Your task to perform on an android device: open app "Viber Messenger" (install if not already installed) Image 0: 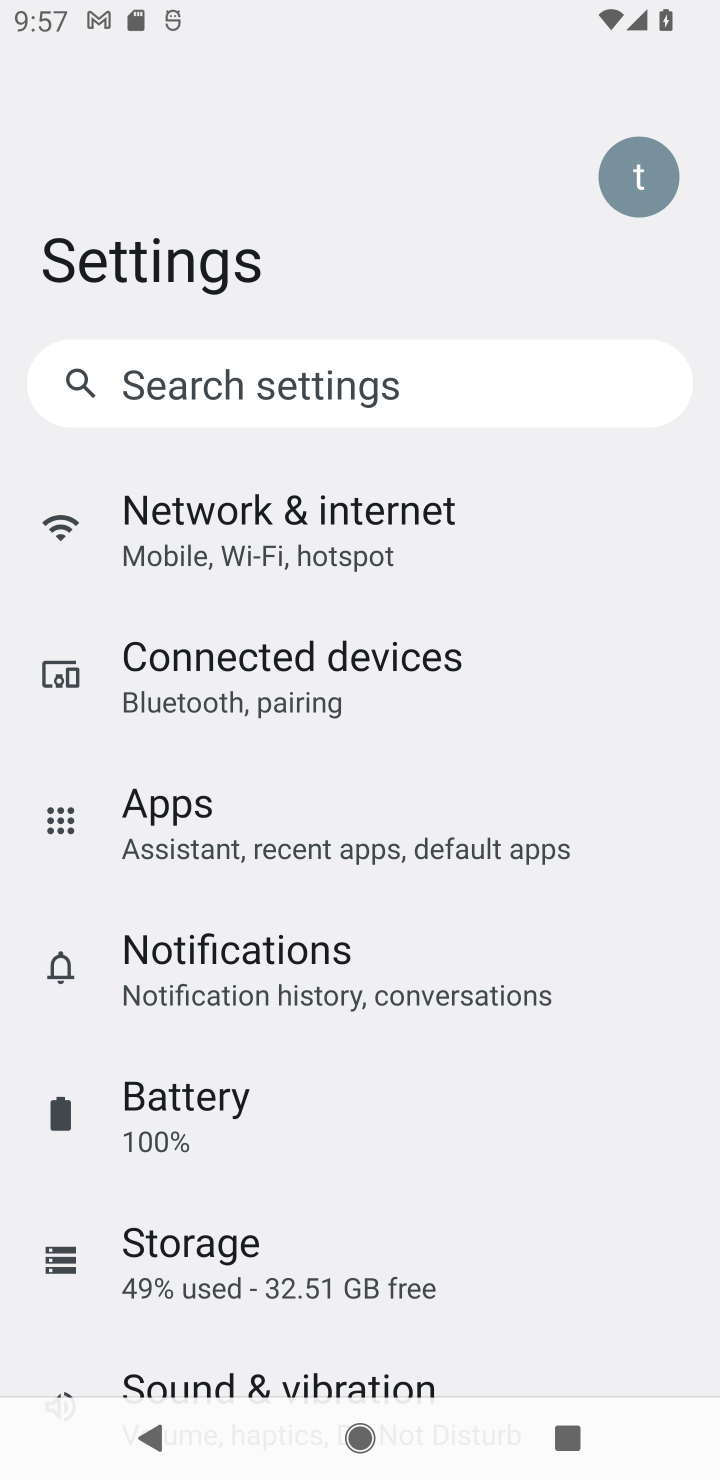
Step 0: press home button
Your task to perform on an android device: open app "Viber Messenger" (install if not already installed) Image 1: 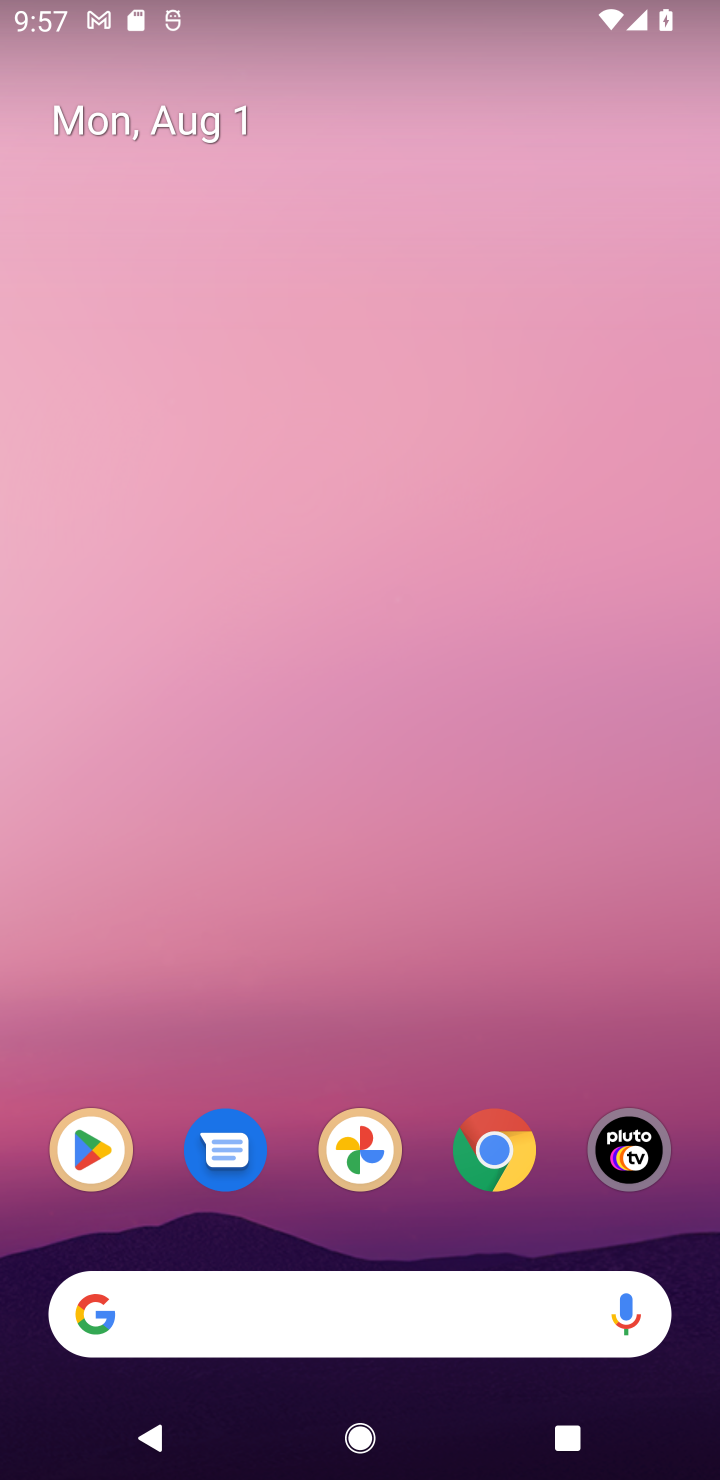
Step 1: drag from (315, 616) to (369, 31)
Your task to perform on an android device: open app "Viber Messenger" (install if not already installed) Image 2: 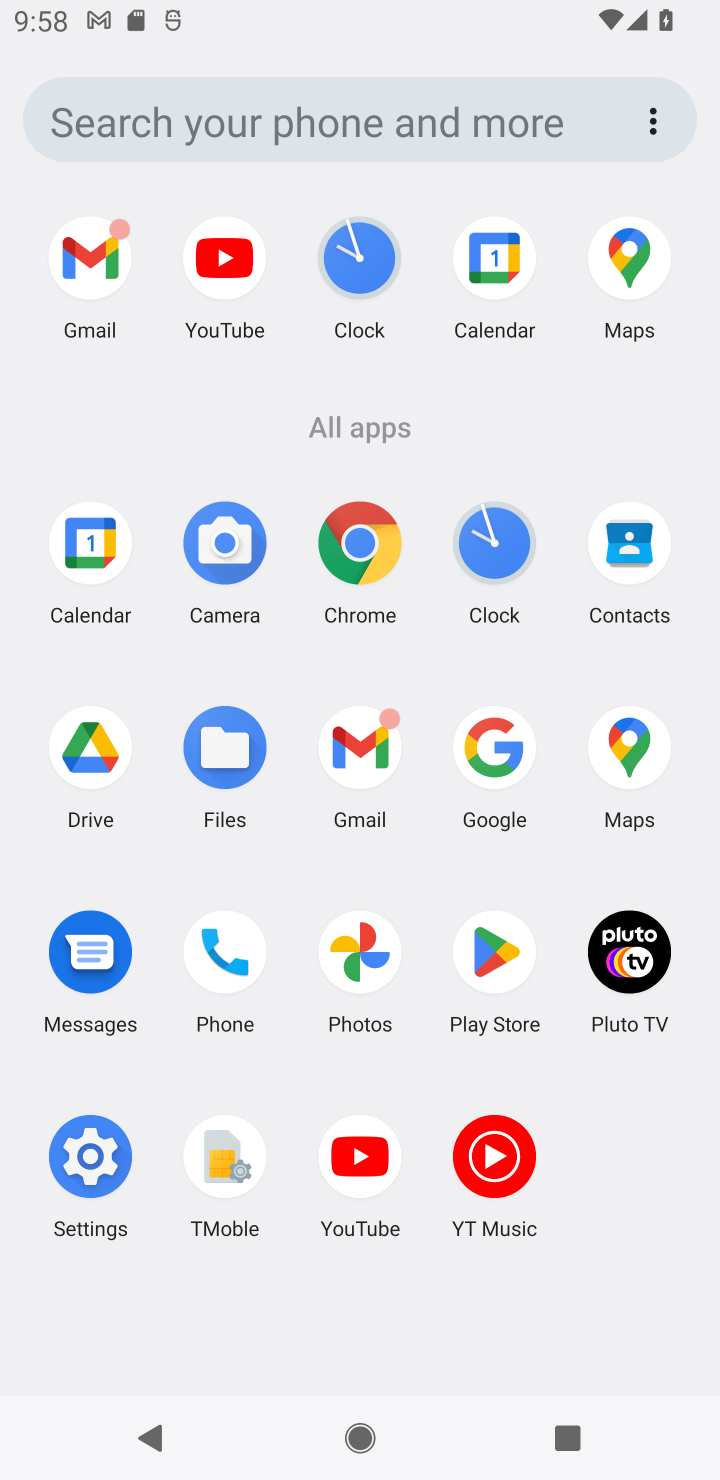
Step 2: click (489, 940)
Your task to perform on an android device: open app "Viber Messenger" (install if not already installed) Image 3: 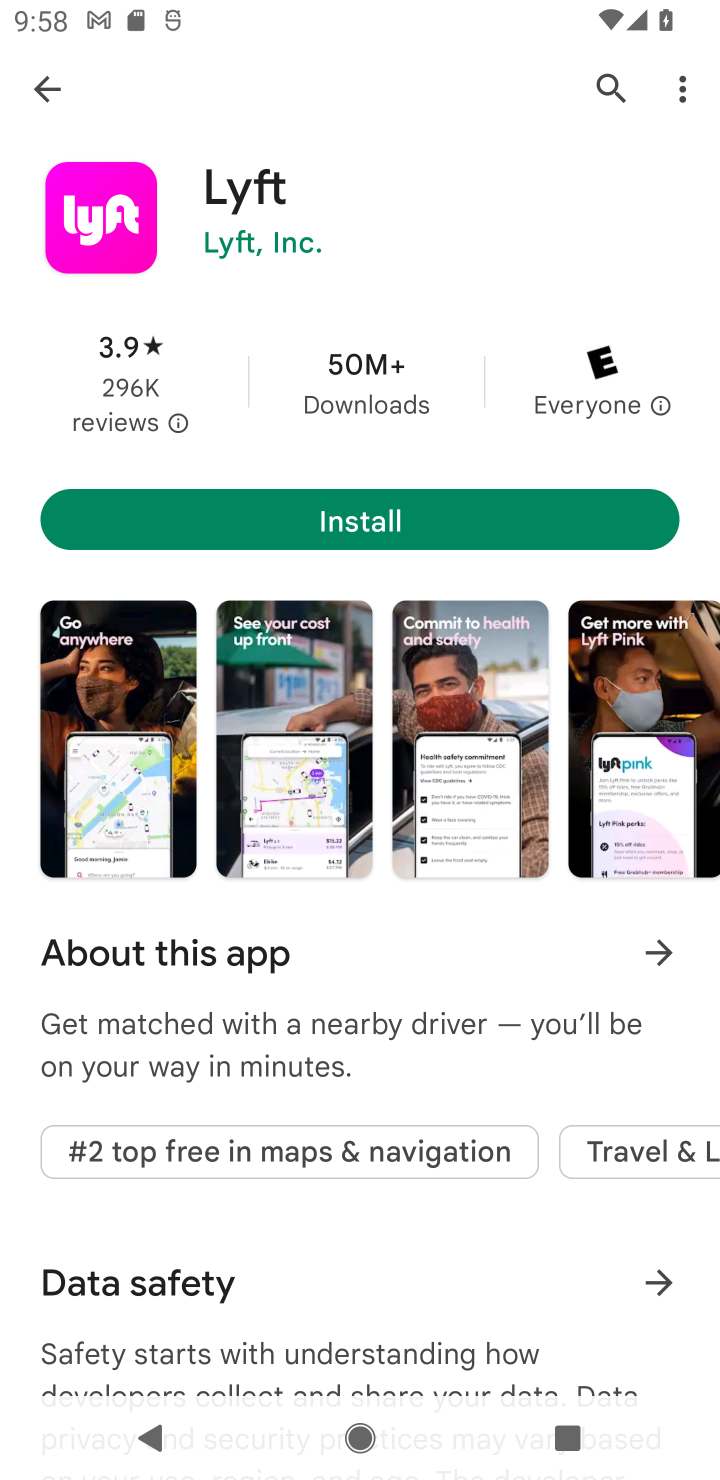
Step 3: click (617, 102)
Your task to perform on an android device: open app "Viber Messenger" (install if not already installed) Image 4: 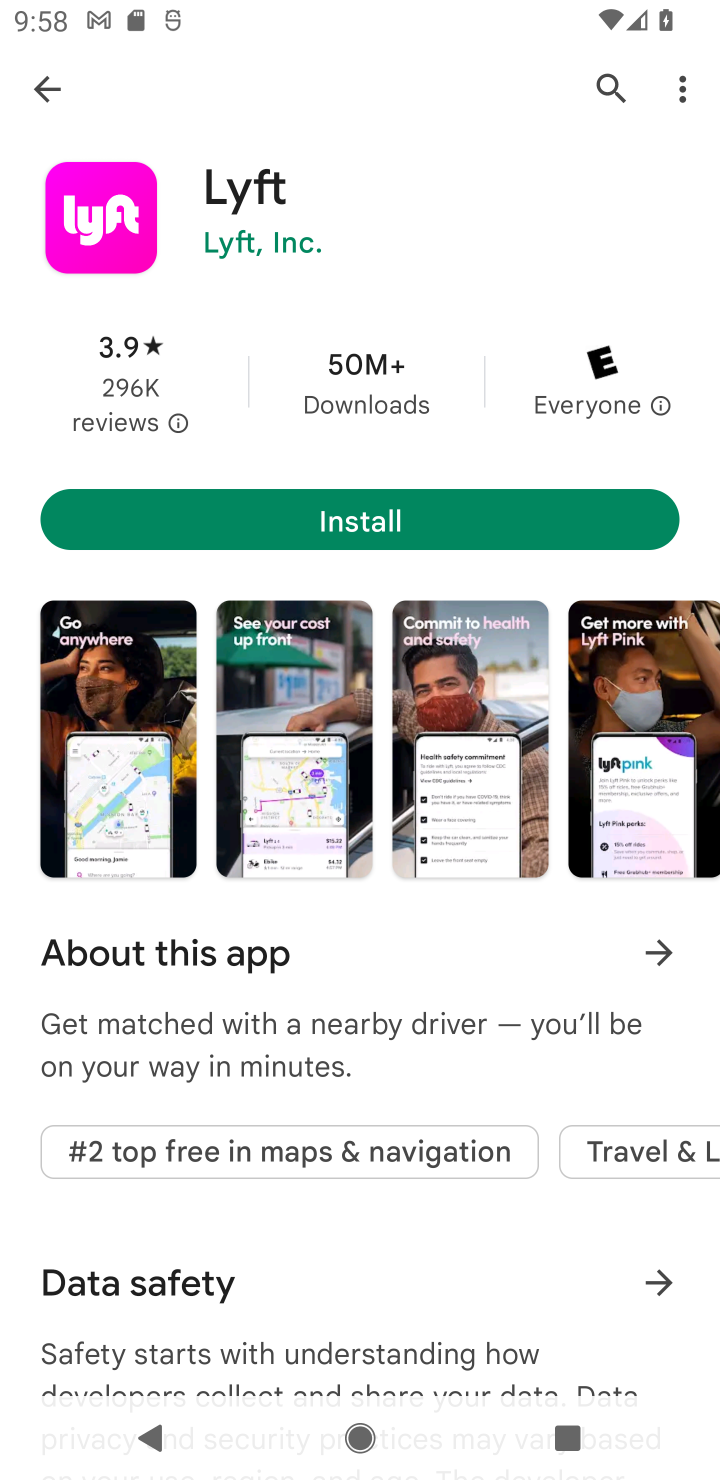
Step 4: click (618, 99)
Your task to perform on an android device: open app "Viber Messenger" (install if not already installed) Image 5: 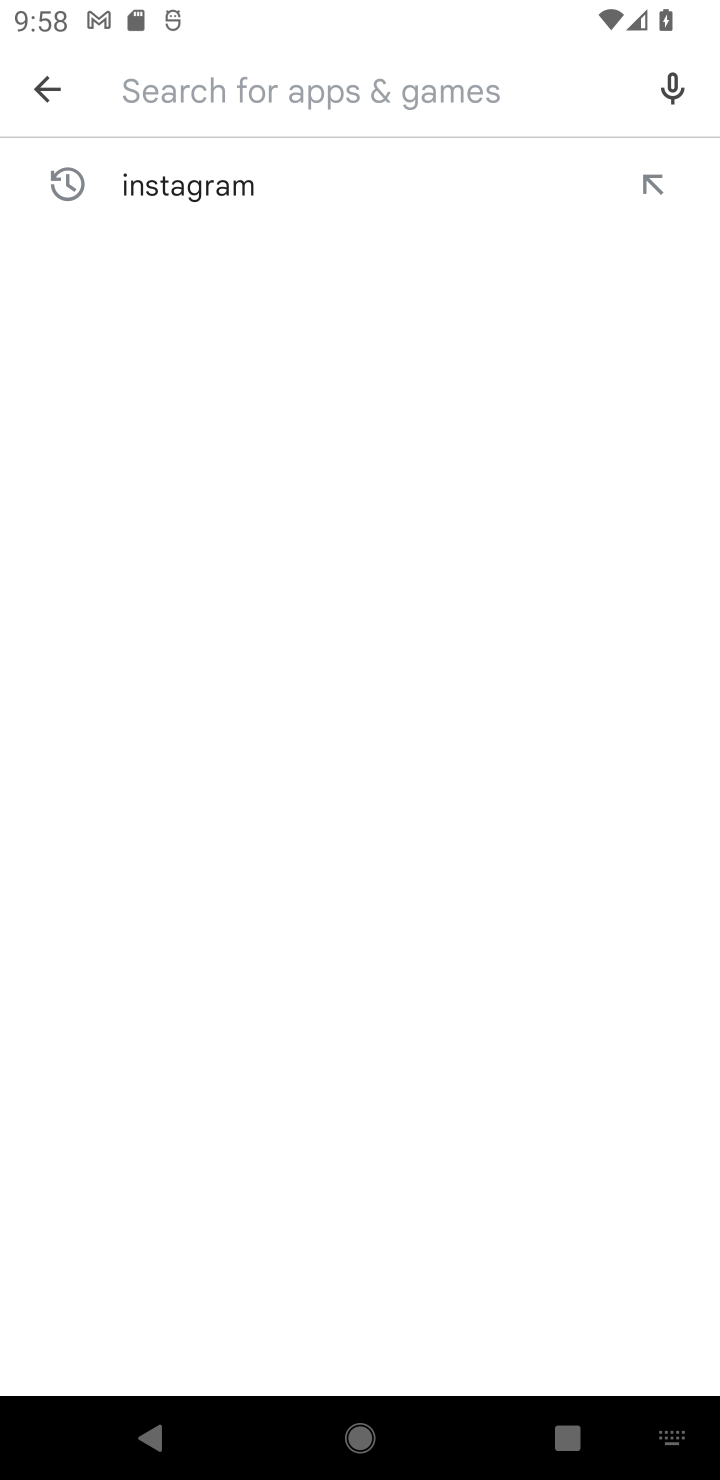
Step 5: type "Viber Messenger"
Your task to perform on an android device: open app "Viber Messenger" (install if not already installed) Image 6: 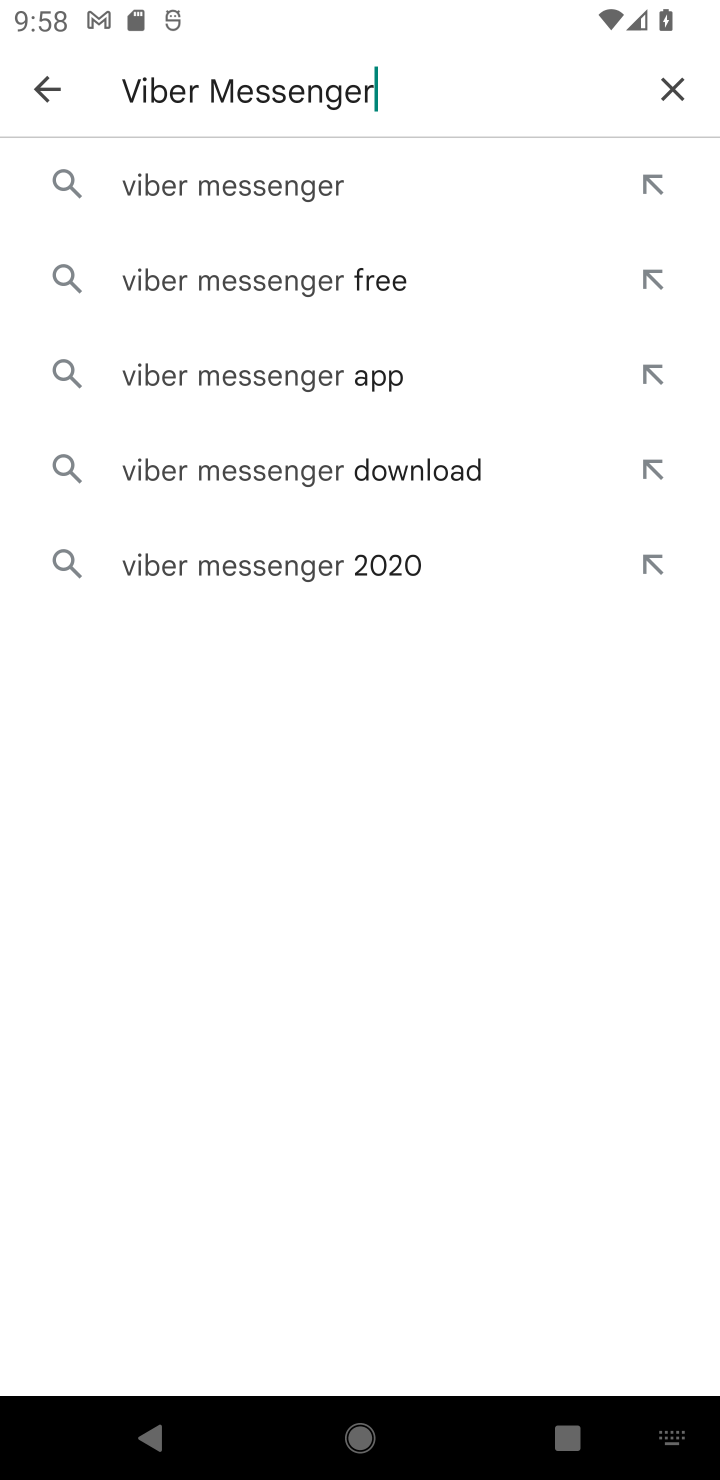
Step 6: click (247, 202)
Your task to perform on an android device: open app "Viber Messenger" (install if not already installed) Image 7: 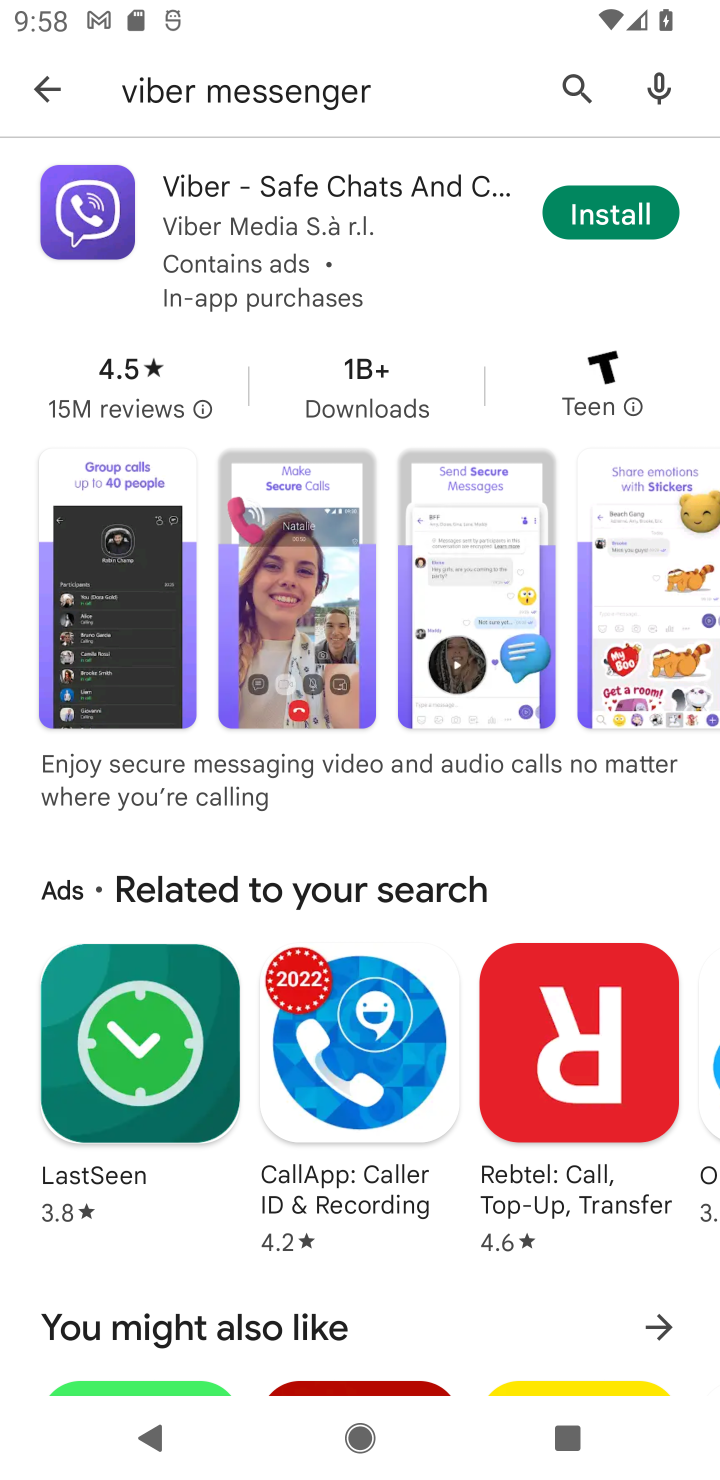
Step 7: click (595, 239)
Your task to perform on an android device: open app "Viber Messenger" (install if not already installed) Image 8: 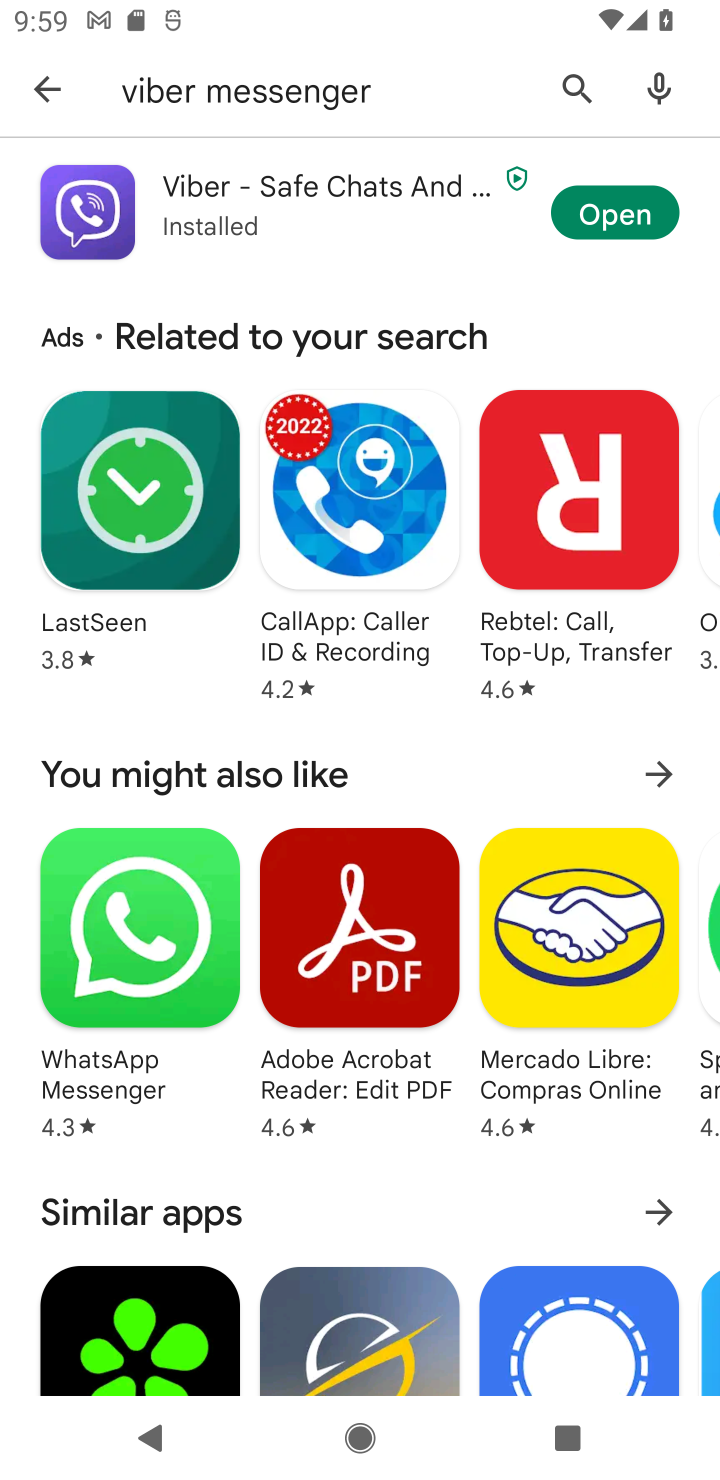
Step 8: click (590, 224)
Your task to perform on an android device: open app "Viber Messenger" (install if not already installed) Image 9: 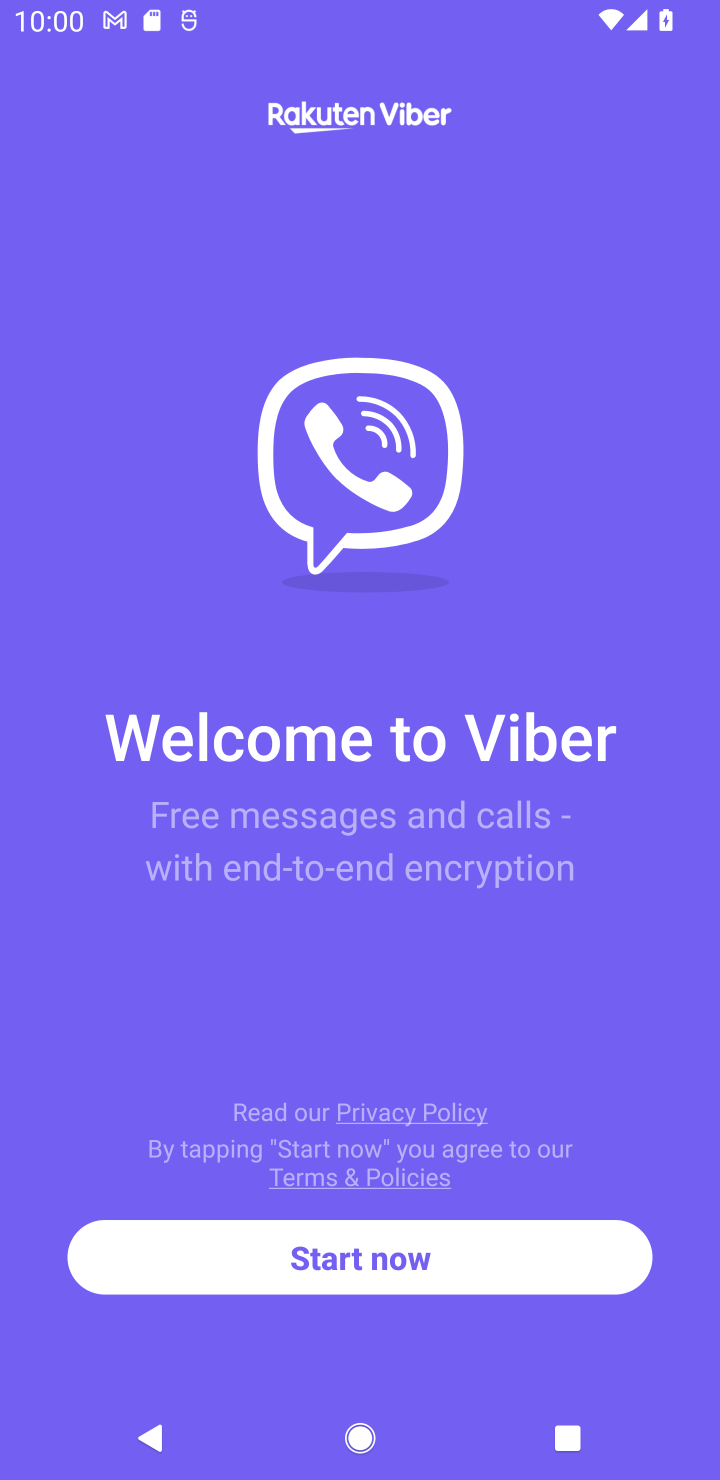
Step 9: task complete